Your task to perform on an android device: Open CNN.com Image 0: 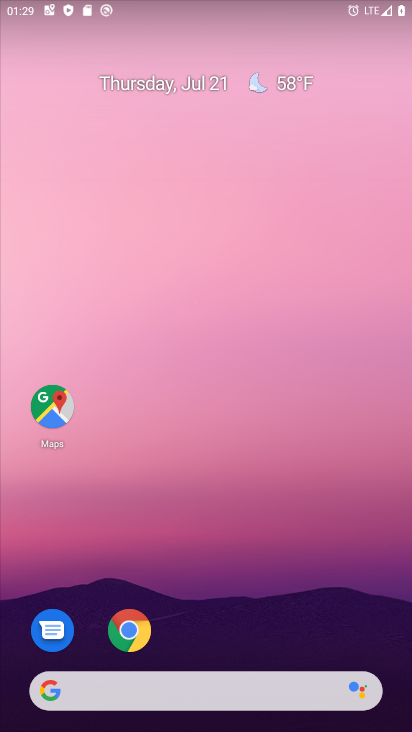
Step 0: click (268, 698)
Your task to perform on an android device: Open CNN.com Image 1: 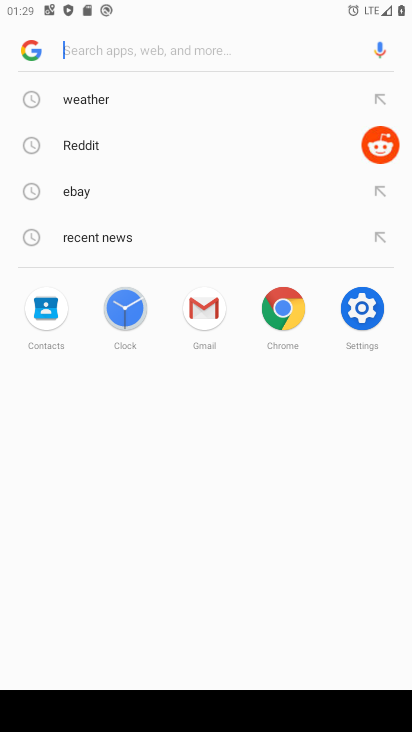
Step 1: type "cnn"
Your task to perform on an android device: Open CNN.com Image 2: 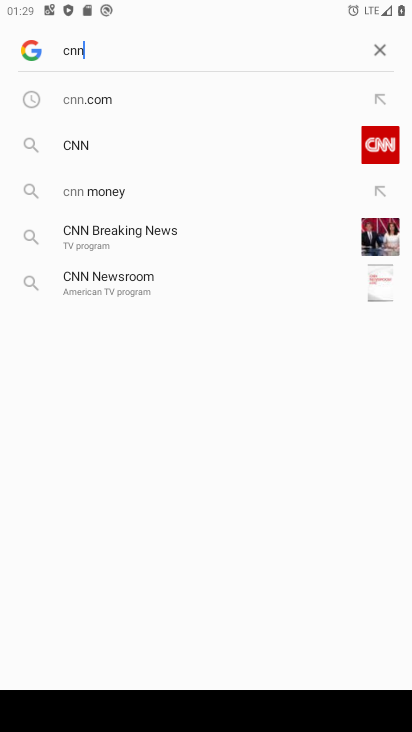
Step 2: click (85, 112)
Your task to perform on an android device: Open CNN.com Image 3: 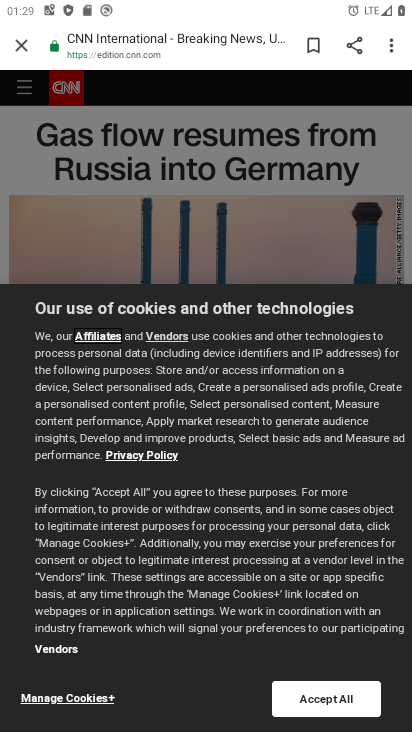
Step 3: task complete